Your task to perform on an android device: toggle notification dots Image 0: 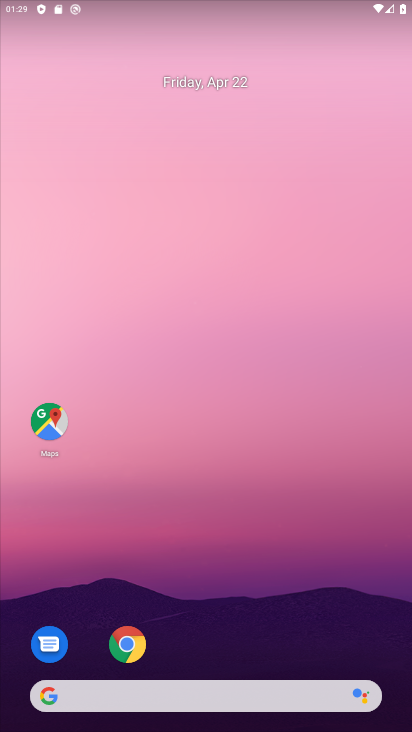
Step 0: drag from (339, 542) to (308, 161)
Your task to perform on an android device: toggle notification dots Image 1: 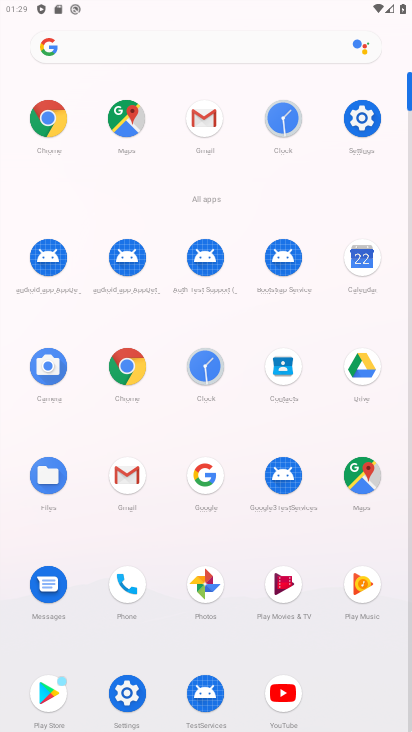
Step 1: click (358, 117)
Your task to perform on an android device: toggle notification dots Image 2: 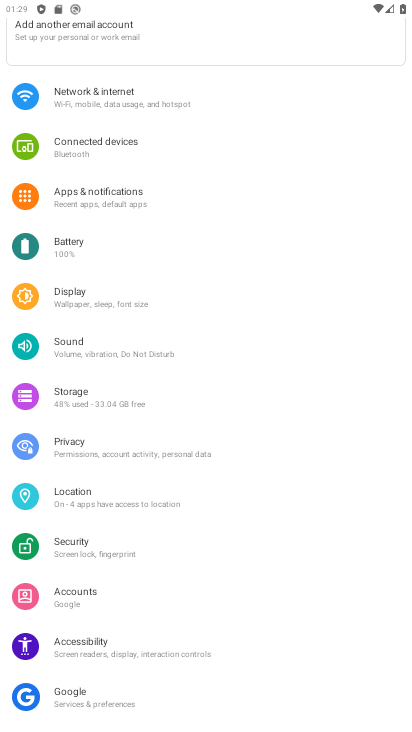
Step 2: click (288, 191)
Your task to perform on an android device: toggle notification dots Image 3: 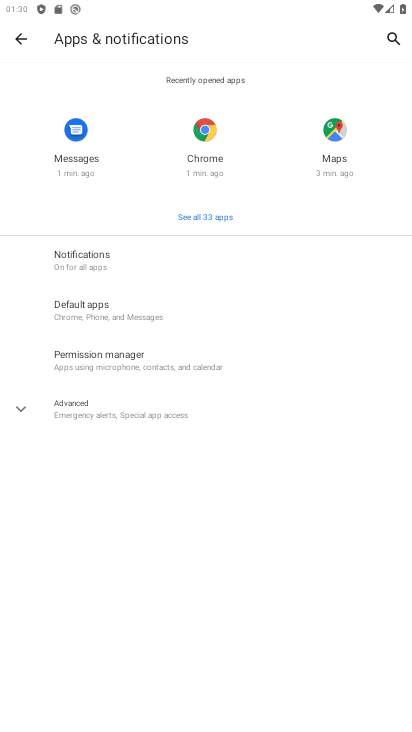
Step 3: click (258, 247)
Your task to perform on an android device: toggle notification dots Image 4: 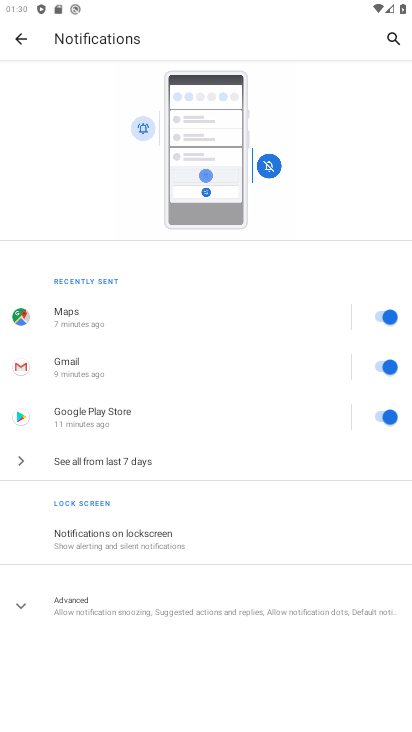
Step 4: click (269, 604)
Your task to perform on an android device: toggle notification dots Image 5: 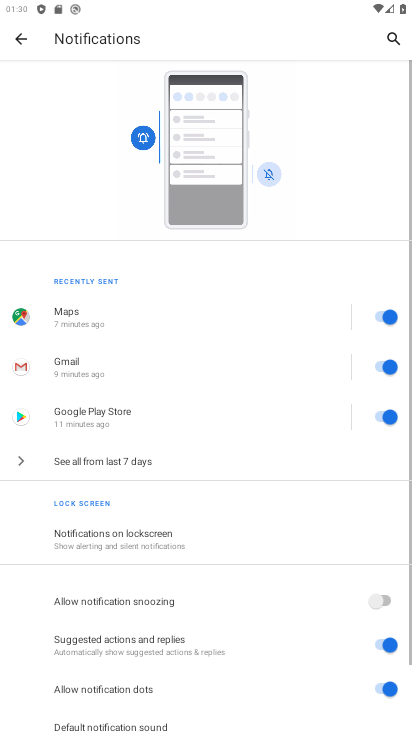
Step 5: drag from (269, 604) to (266, 210)
Your task to perform on an android device: toggle notification dots Image 6: 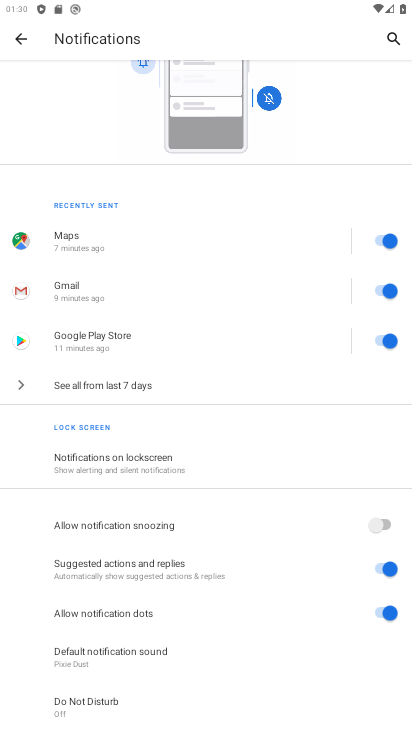
Step 6: click (384, 605)
Your task to perform on an android device: toggle notification dots Image 7: 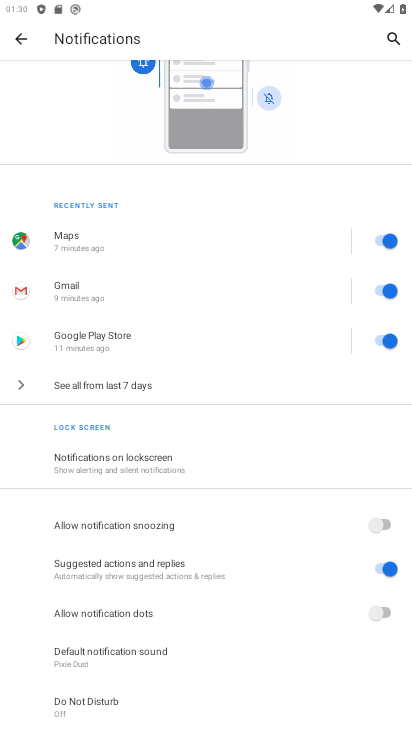
Step 7: task complete